Your task to perform on an android device: check storage Image 0: 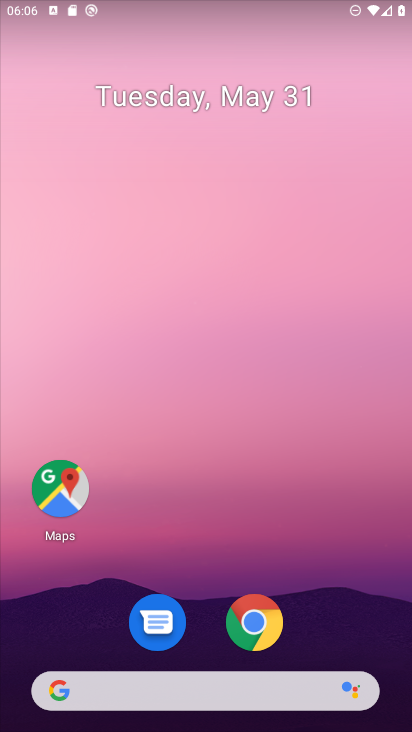
Step 0: click (303, 31)
Your task to perform on an android device: check storage Image 1: 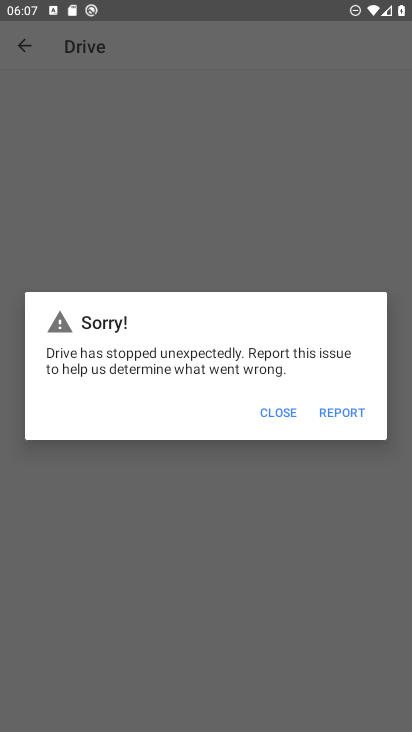
Step 1: press home button
Your task to perform on an android device: check storage Image 2: 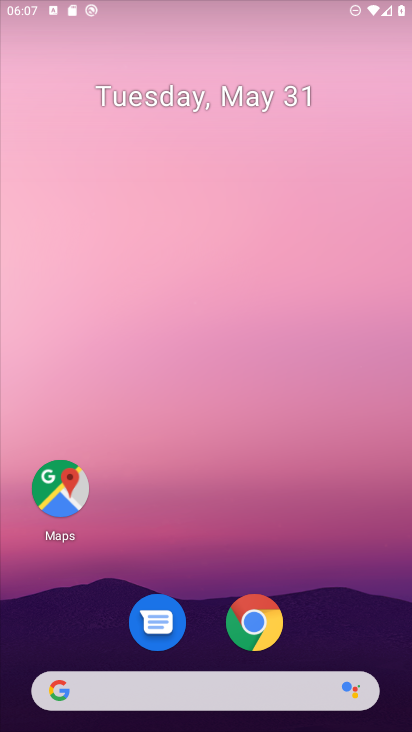
Step 2: drag from (268, 691) to (278, 41)
Your task to perform on an android device: check storage Image 3: 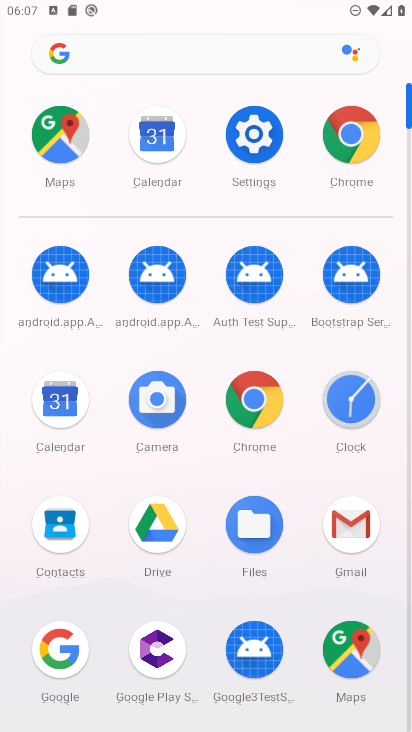
Step 3: click (250, 141)
Your task to perform on an android device: check storage Image 4: 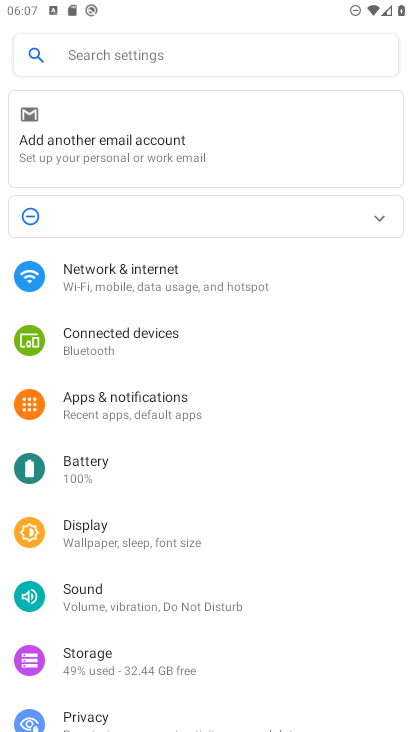
Step 4: drag from (294, 692) to (352, 284)
Your task to perform on an android device: check storage Image 5: 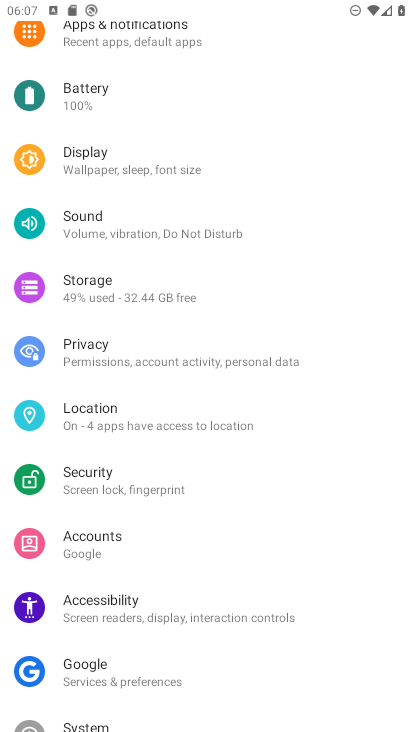
Step 5: click (218, 298)
Your task to perform on an android device: check storage Image 6: 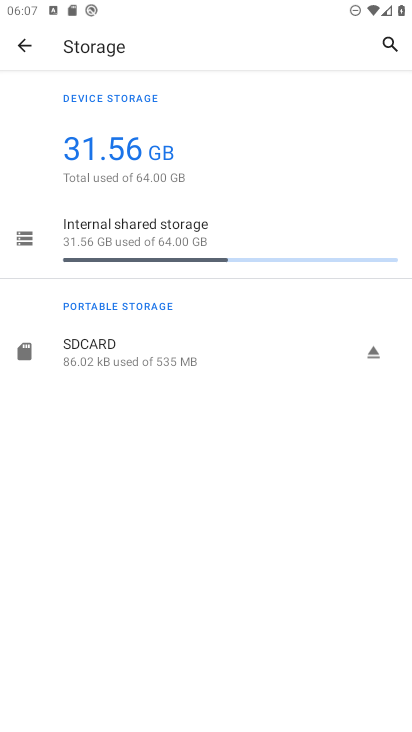
Step 6: task complete